Your task to perform on an android device: turn off airplane mode Image 0: 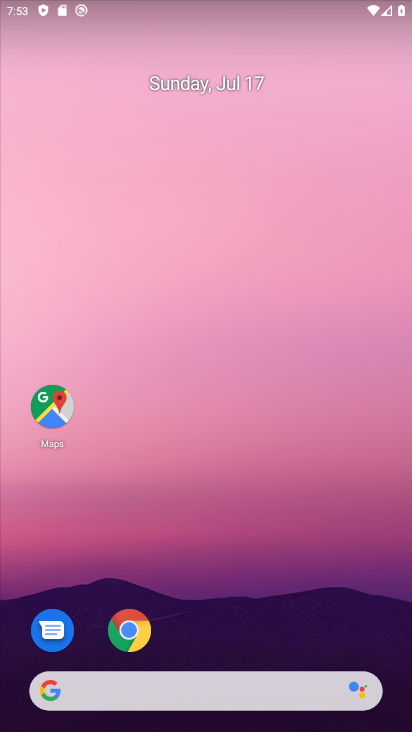
Step 0: drag from (300, 650) to (250, 12)
Your task to perform on an android device: turn off airplane mode Image 1: 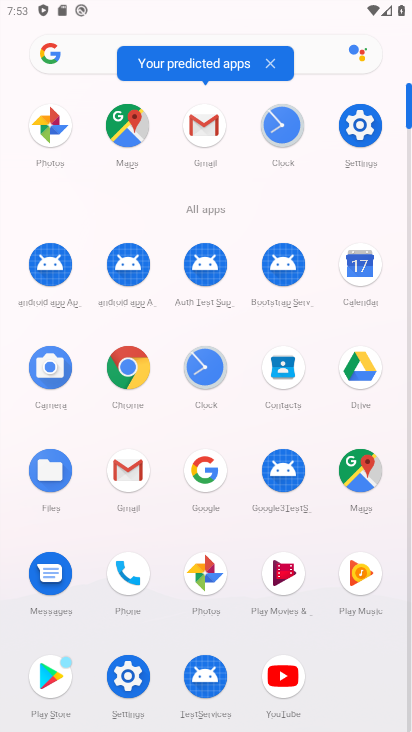
Step 1: click (362, 131)
Your task to perform on an android device: turn off airplane mode Image 2: 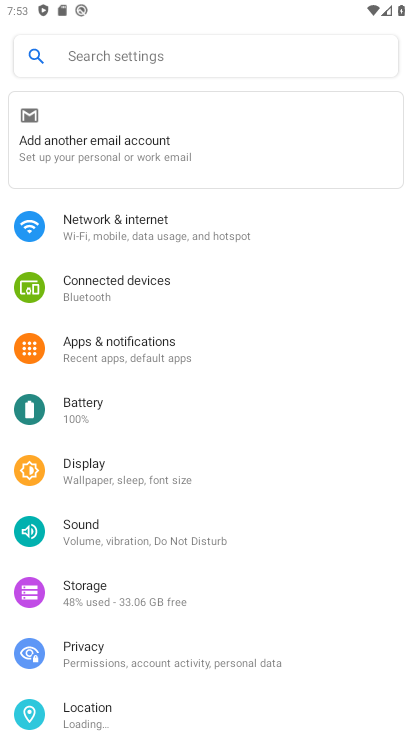
Step 2: click (106, 220)
Your task to perform on an android device: turn off airplane mode Image 3: 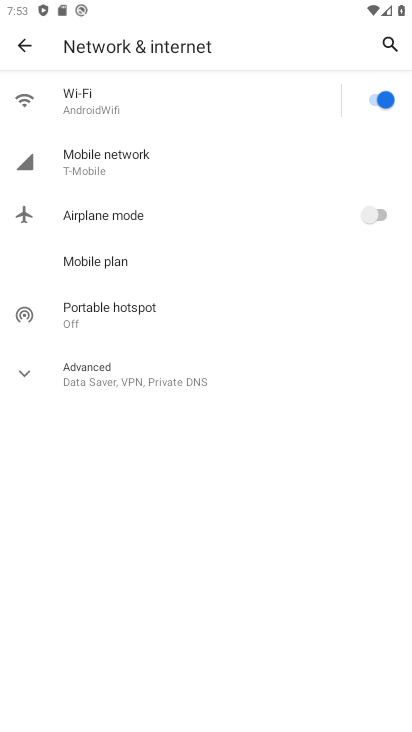
Step 3: task complete